Your task to perform on an android device: Open sound settings Image 0: 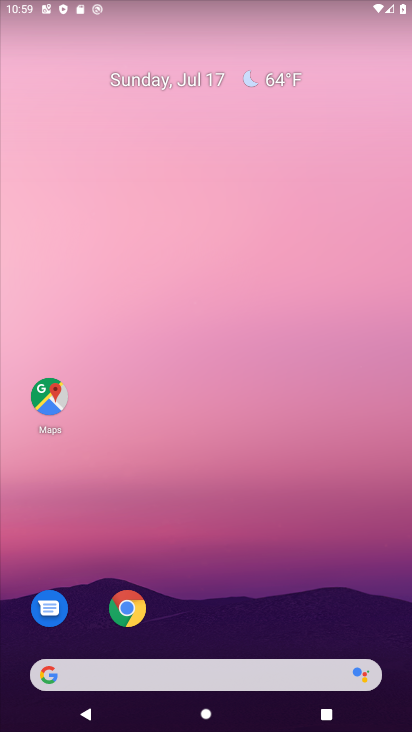
Step 0: drag from (330, 588) to (227, 7)
Your task to perform on an android device: Open sound settings Image 1: 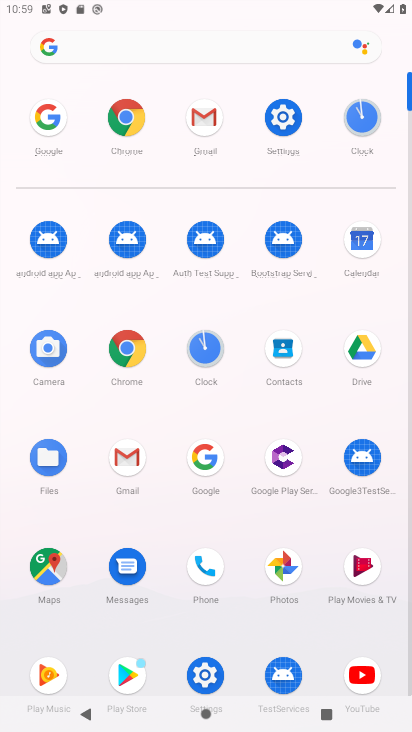
Step 1: click (194, 672)
Your task to perform on an android device: Open sound settings Image 2: 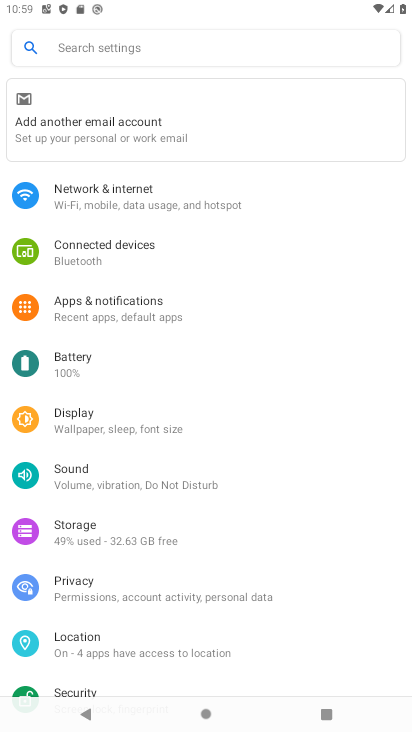
Step 2: click (114, 488)
Your task to perform on an android device: Open sound settings Image 3: 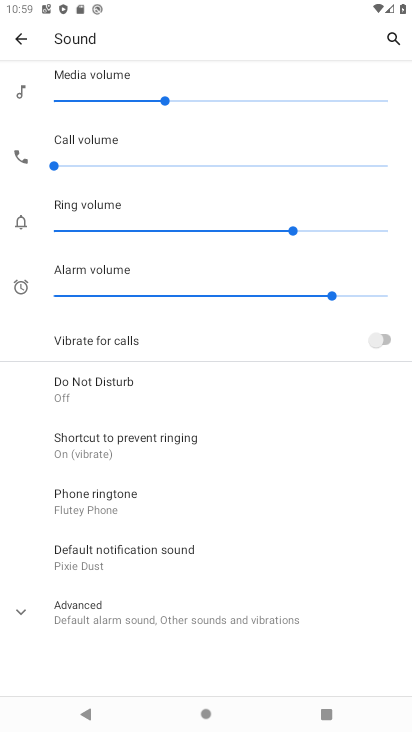
Step 3: task complete